Your task to perform on an android device: Open my contact list Image 0: 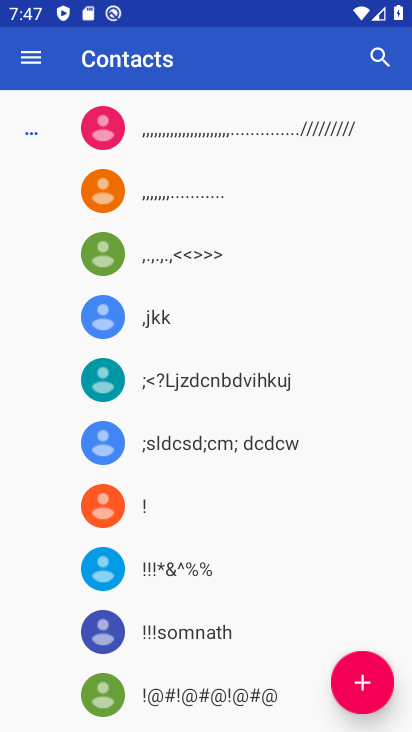
Step 0: task complete